Your task to perform on an android device: uninstall "Pluto TV - Live TV and Movies" Image 0: 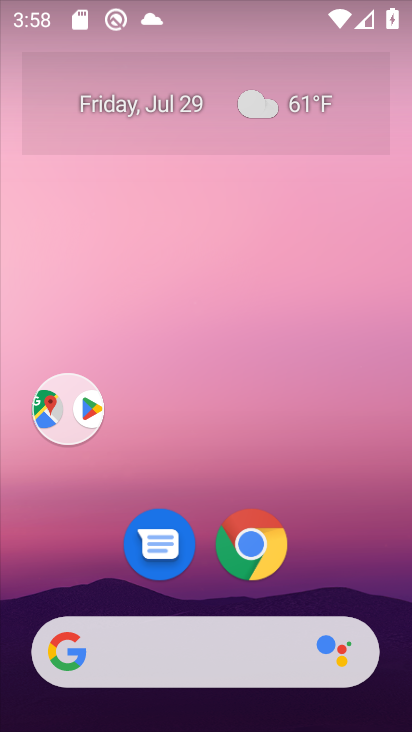
Step 0: drag from (201, 724) to (201, 176)
Your task to perform on an android device: uninstall "Pluto TV - Live TV and Movies" Image 1: 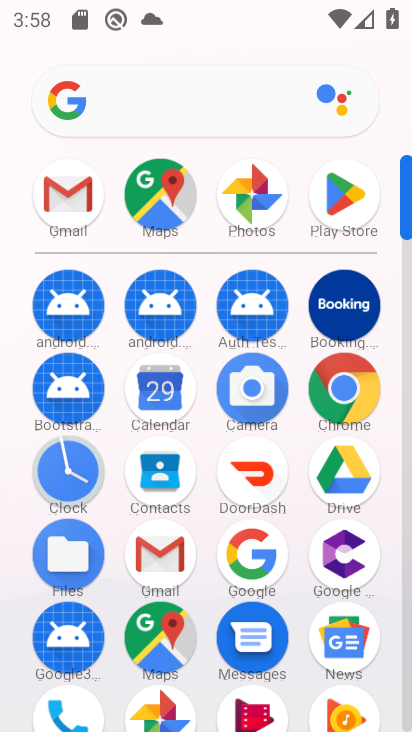
Step 1: click (352, 199)
Your task to perform on an android device: uninstall "Pluto TV - Live TV and Movies" Image 2: 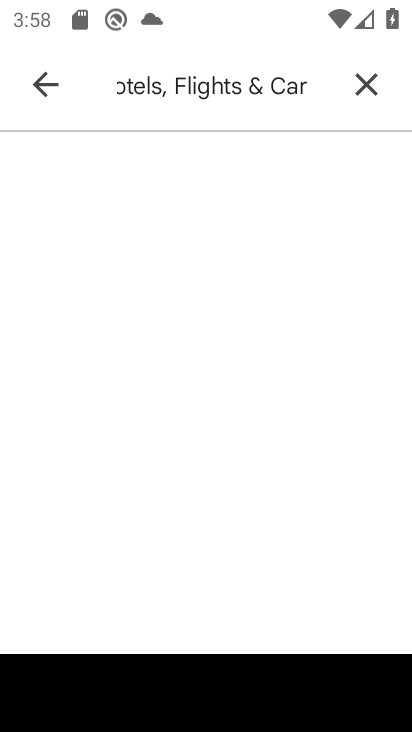
Step 2: click (368, 79)
Your task to perform on an android device: uninstall "Pluto TV - Live TV and Movies" Image 3: 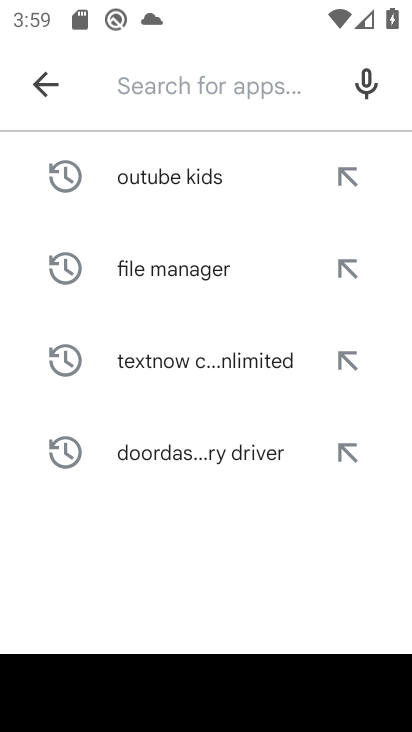
Step 3: type "Pluto TV - Live TV and Movies"
Your task to perform on an android device: uninstall "Pluto TV - Live TV and Movies" Image 4: 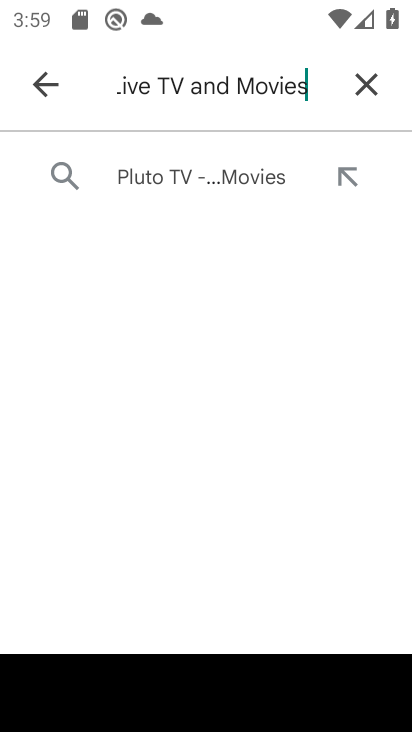
Step 4: click (213, 184)
Your task to perform on an android device: uninstall "Pluto TV - Live TV and Movies" Image 5: 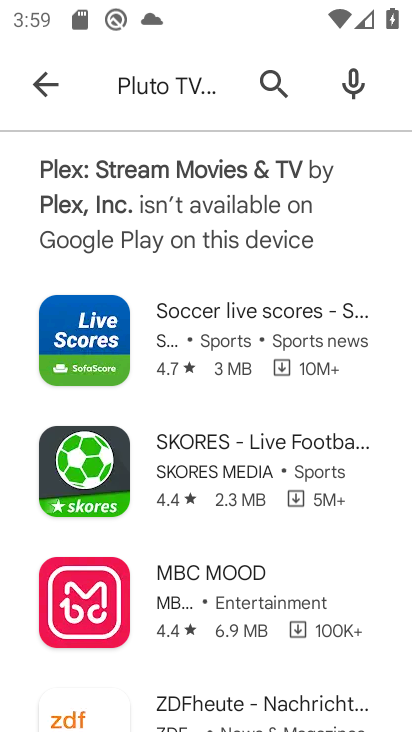
Step 5: click (213, 184)
Your task to perform on an android device: uninstall "Pluto TV - Live TV and Movies" Image 6: 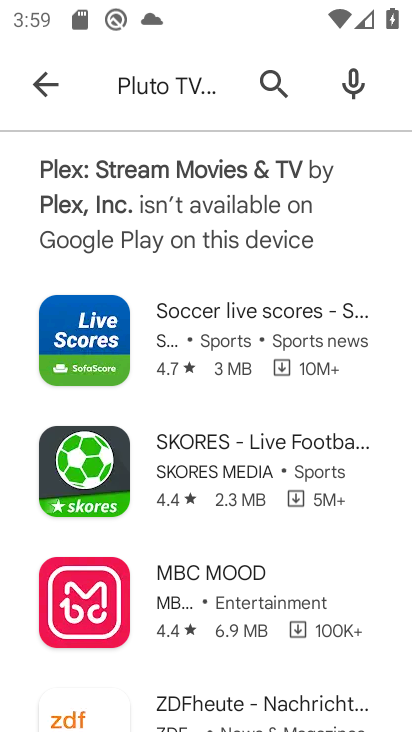
Step 6: click (213, 184)
Your task to perform on an android device: uninstall "Pluto TV - Live TV and Movies" Image 7: 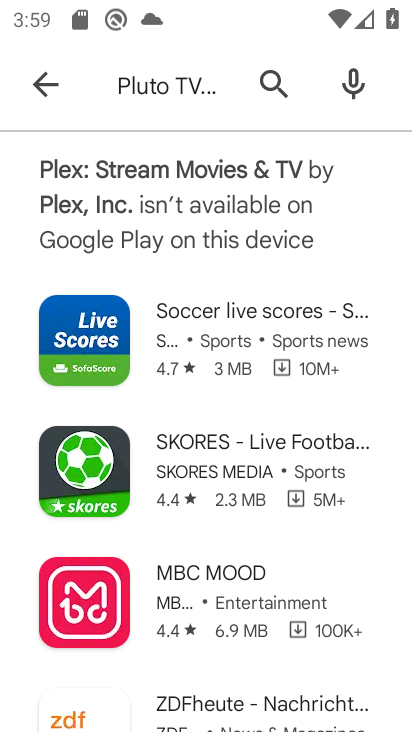
Step 7: click (213, 184)
Your task to perform on an android device: uninstall "Pluto TV - Live TV and Movies" Image 8: 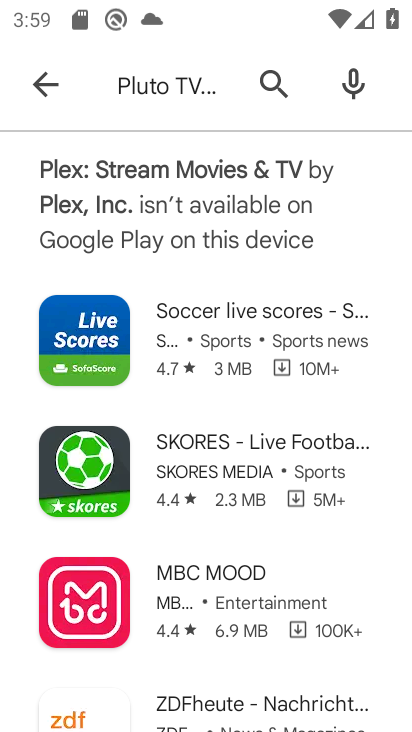
Step 8: task complete